Your task to perform on an android device: Show me recent news Image 0: 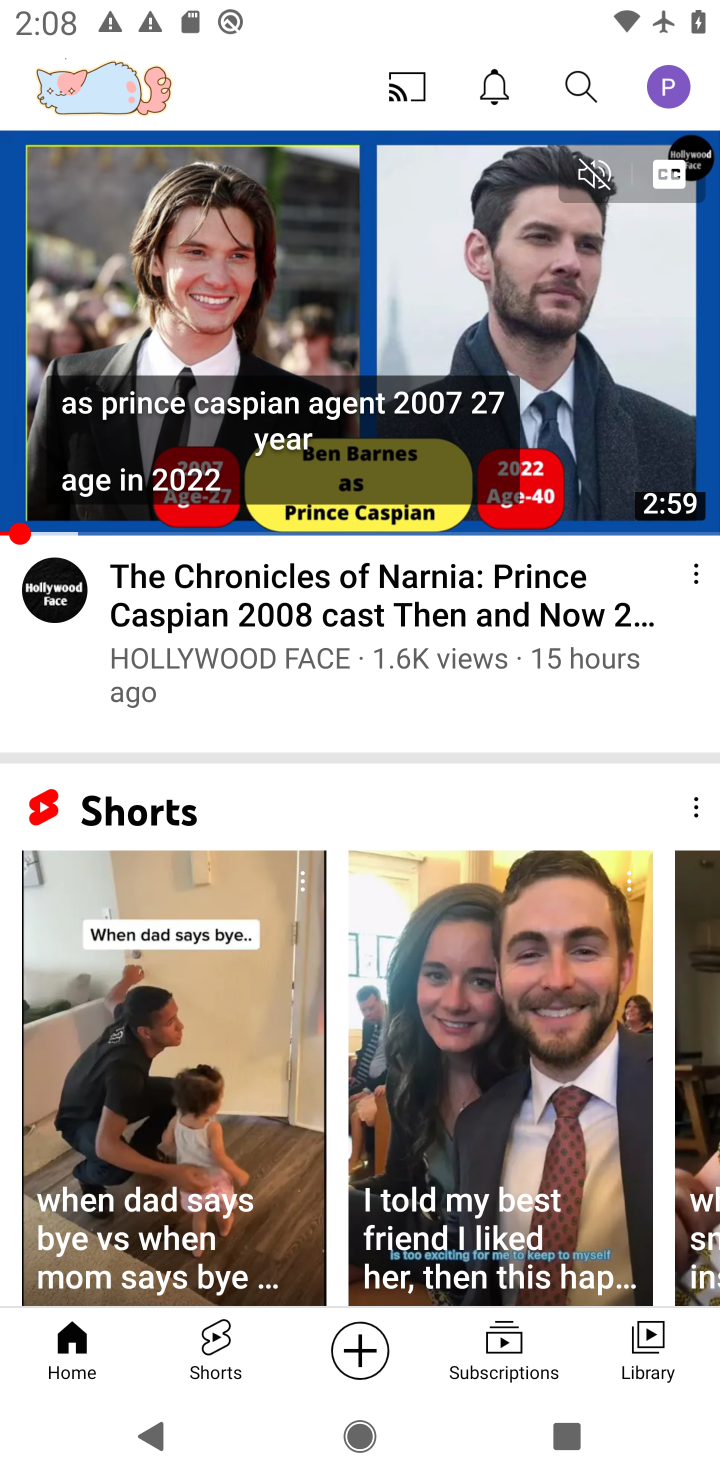
Step 0: press home button
Your task to perform on an android device: Show me recent news Image 1: 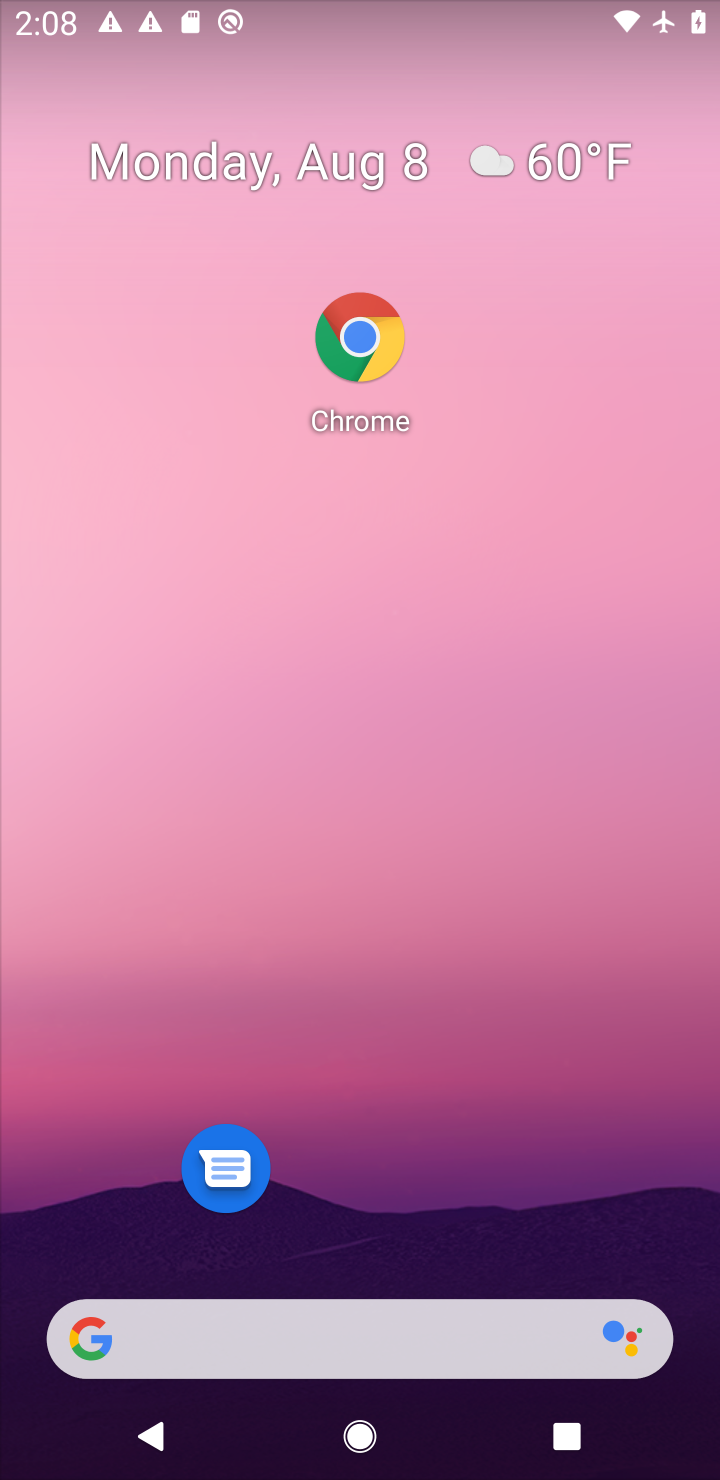
Step 1: click (363, 1329)
Your task to perform on an android device: Show me recent news Image 2: 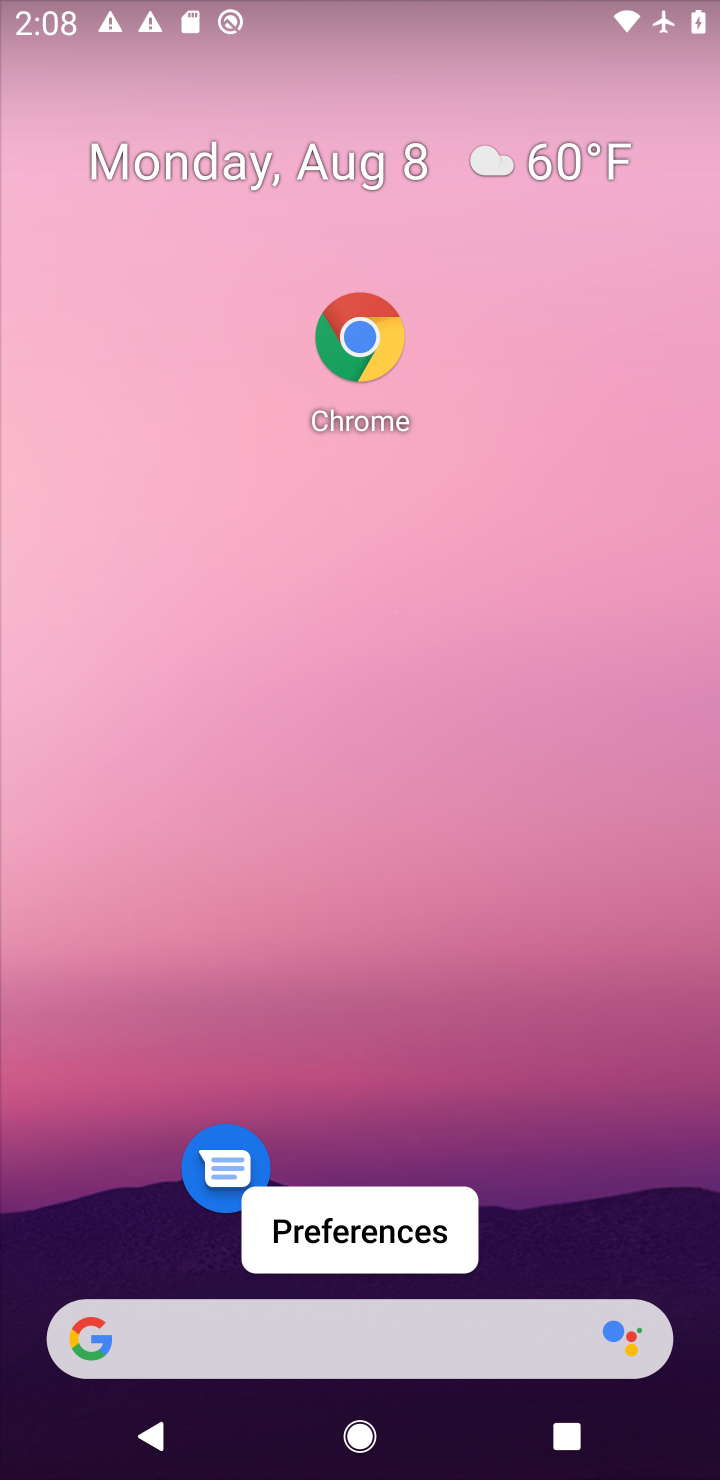
Step 2: click (363, 1329)
Your task to perform on an android device: Show me recent news Image 3: 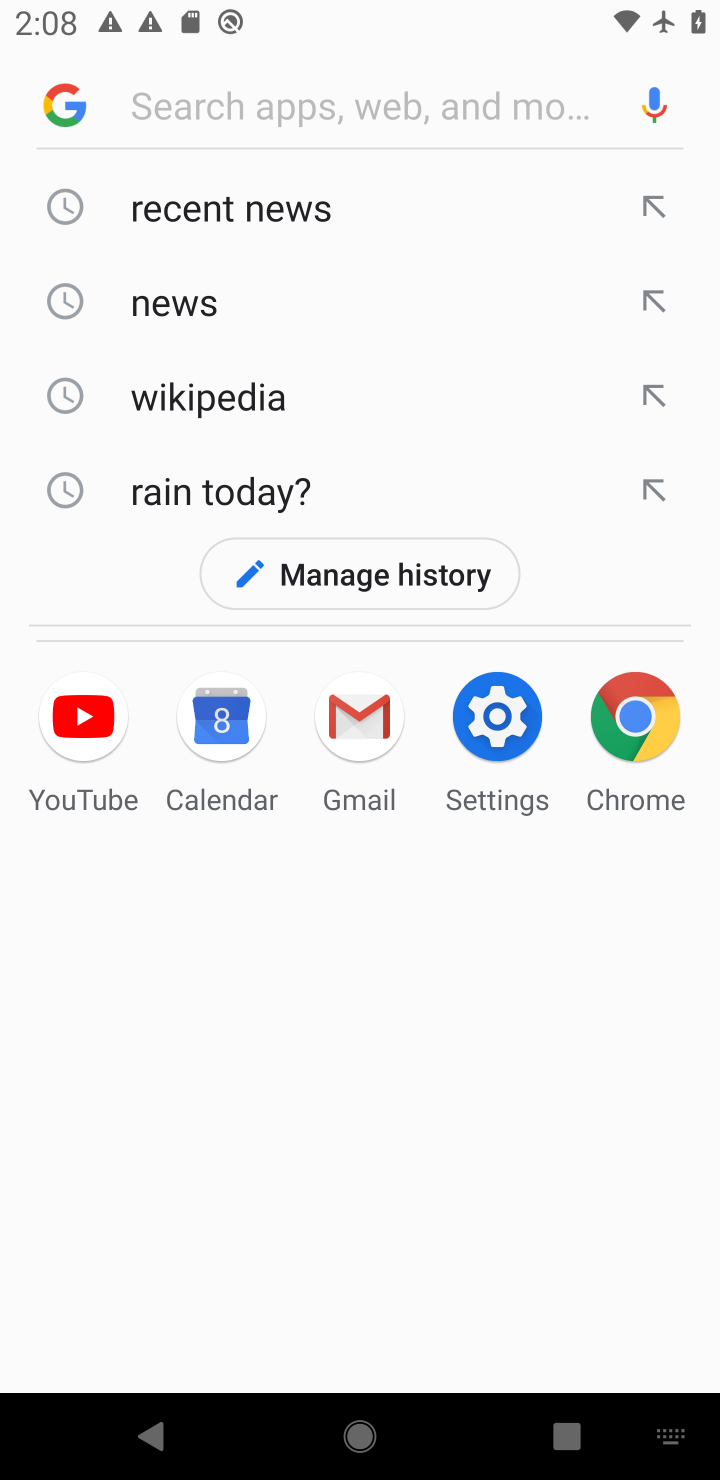
Step 3: click (269, 232)
Your task to perform on an android device: Show me recent news Image 4: 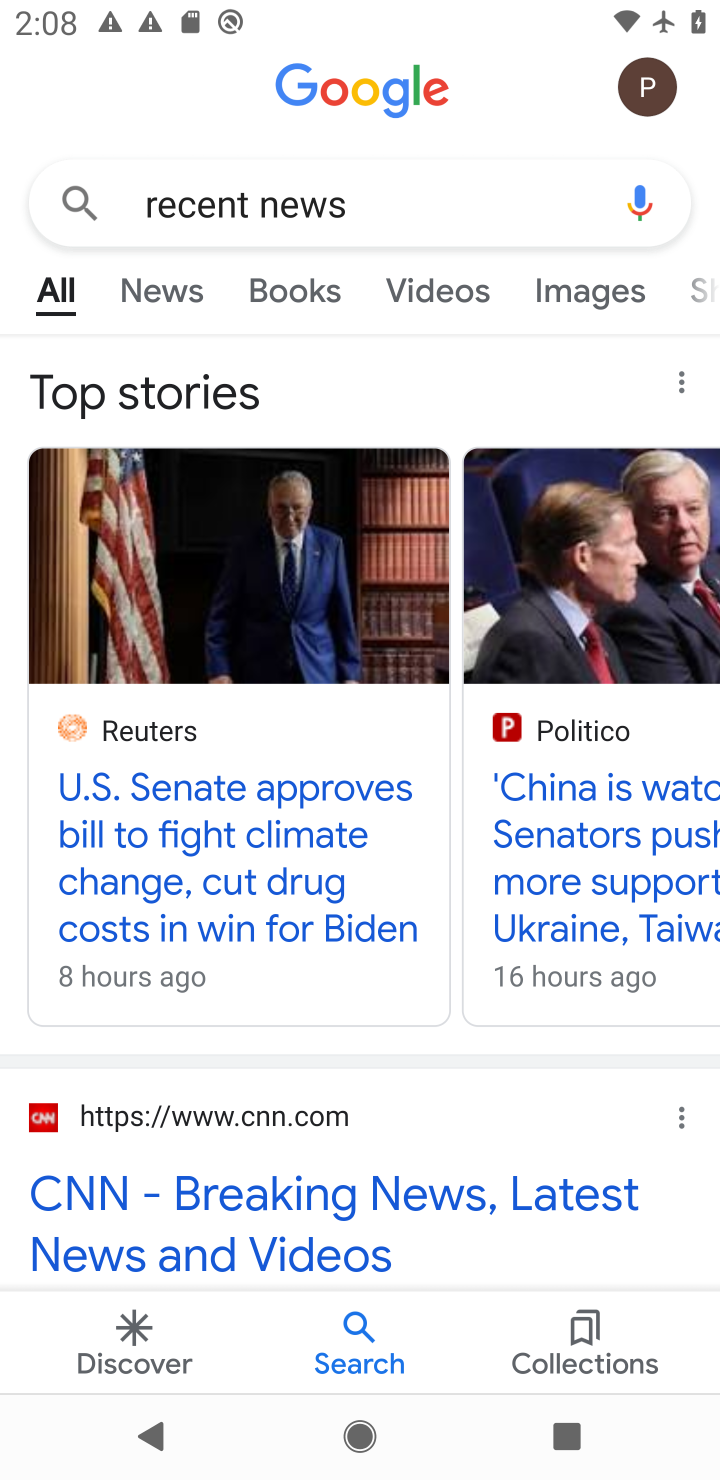
Step 4: task complete